Your task to perform on an android device: Open settings Image 0: 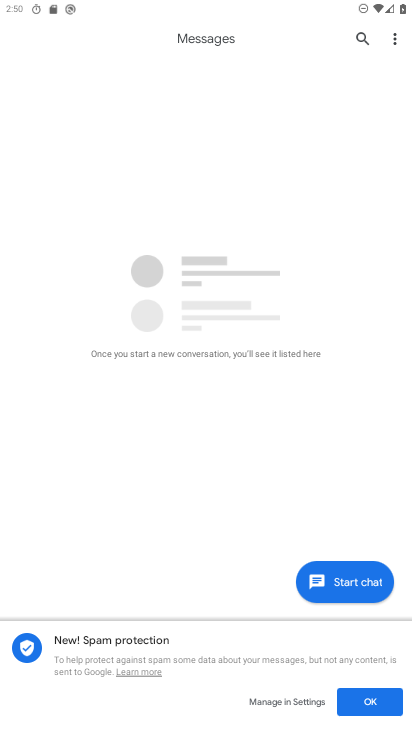
Step 0: press home button
Your task to perform on an android device: Open settings Image 1: 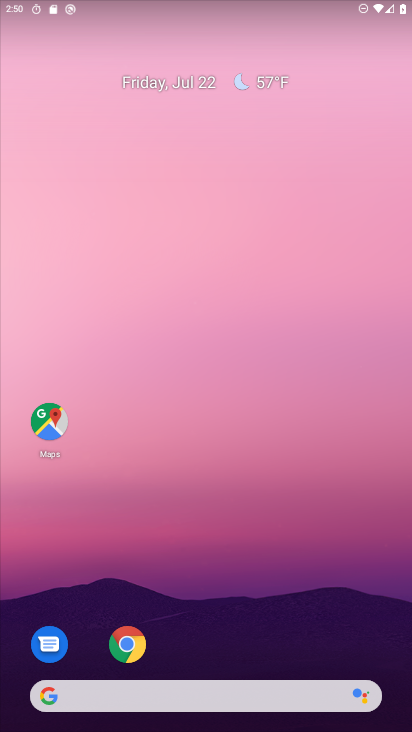
Step 1: drag from (254, 635) to (242, 91)
Your task to perform on an android device: Open settings Image 2: 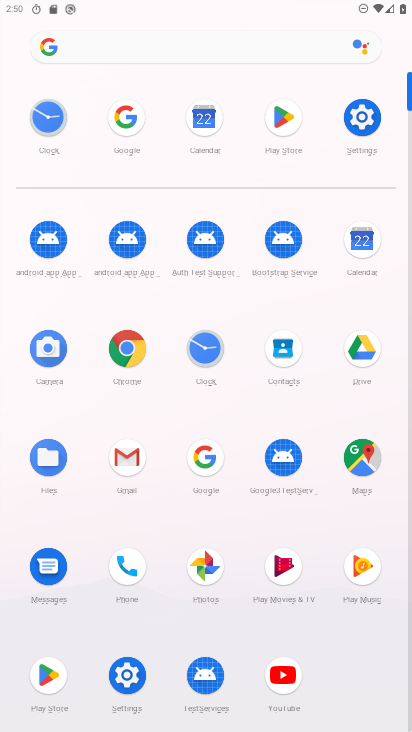
Step 2: click (342, 108)
Your task to perform on an android device: Open settings Image 3: 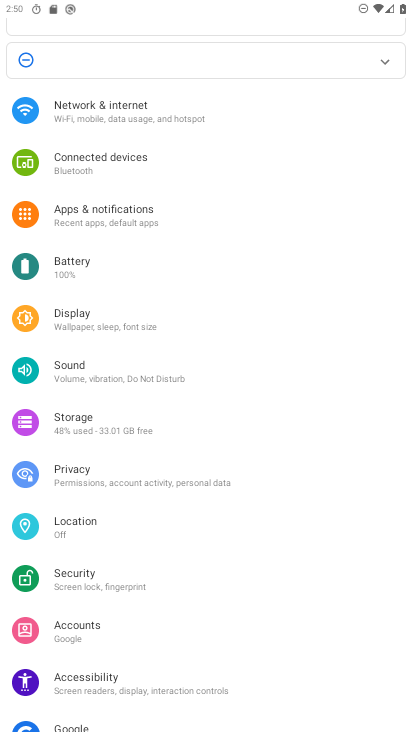
Step 3: task complete